Your task to perform on an android device: Search for seafood restaurants on Google Maps Image 0: 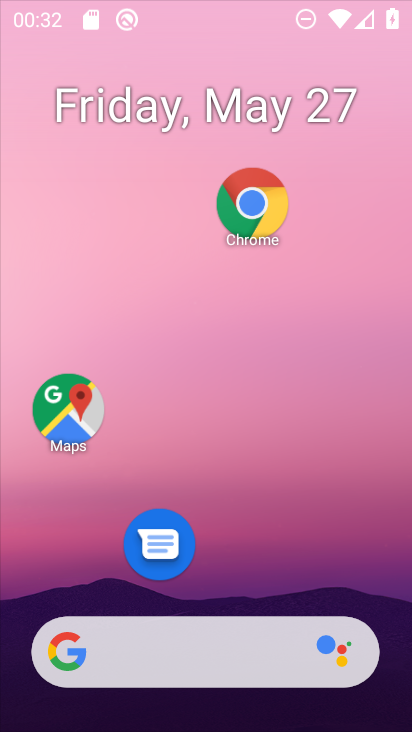
Step 0: drag from (209, 573) to (123, 7)
Your task to perform on an android device: Search for seafood restaurants on Google Maps Image 1: 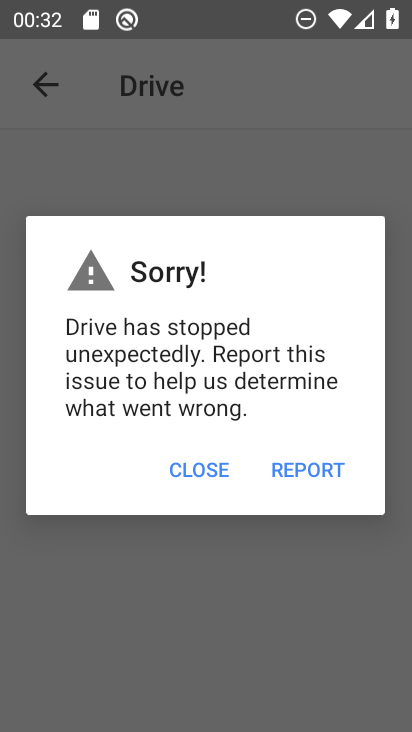
Step 1: press home button
Your task to perform on an android device: Search for seafood restaurants on Google Maps Image 2: 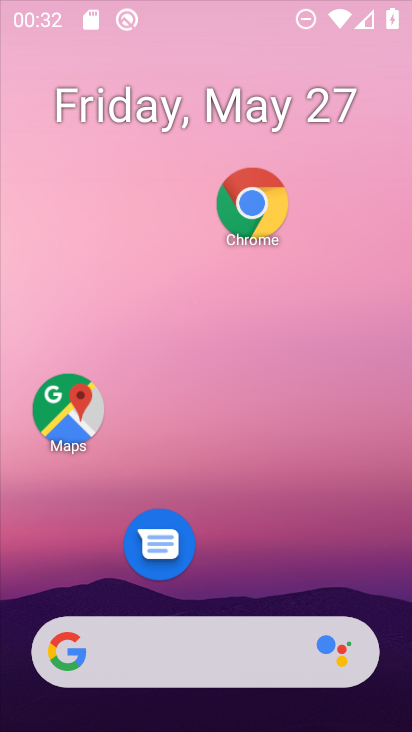
Step 2: drag from (191, 594) to (244, 74)
Your task to perform on an android device: Search for seafood restaurants on Google Maps Image 3: 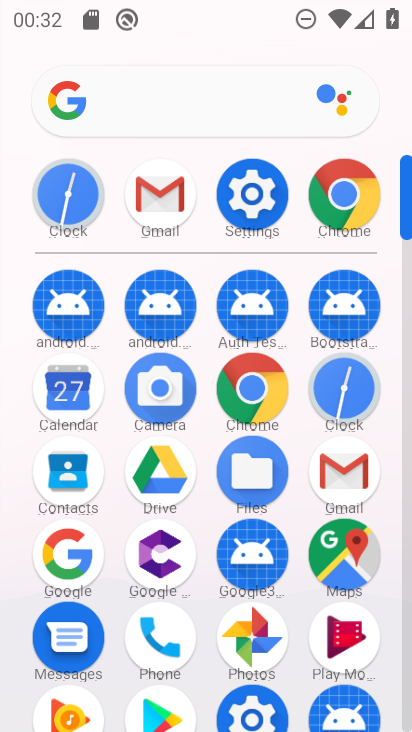
Step 3: click (342, 545)
Your task to perform on an android device: Search for seafood restaurants on Google Maps Image 4: 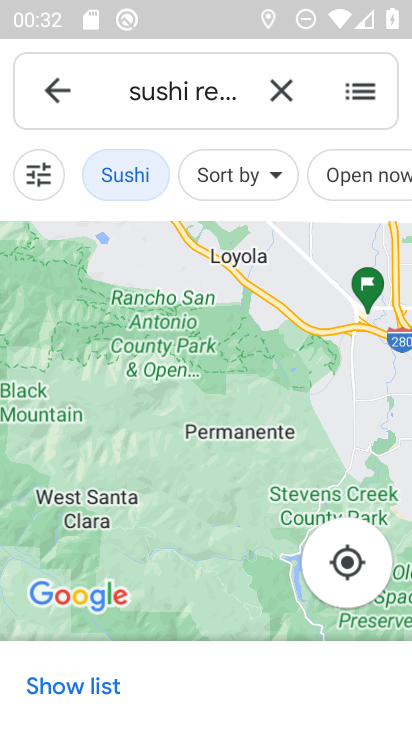
Step 4: click (277, 87)
Your task to perform on an android device: Search for seafood restaurants on Google Maps Image 5: 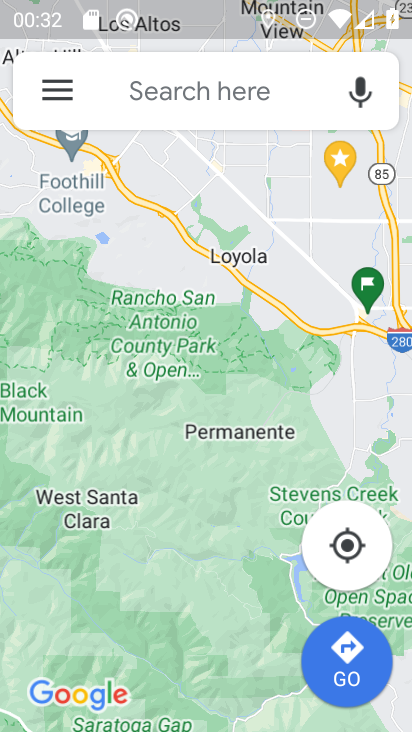
Step 5: click (189, 95)
Your task to perform on an android device: Search for seafood restaurants on Google Maps Image 6: 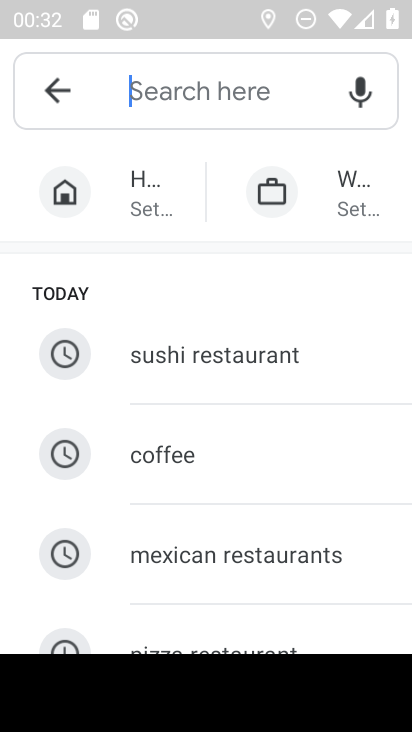
Step 6: drag from (203, 520) to (278, 210)
Your task to perform on an android device: Search for seafood restaurants on Google Maps Image 7: 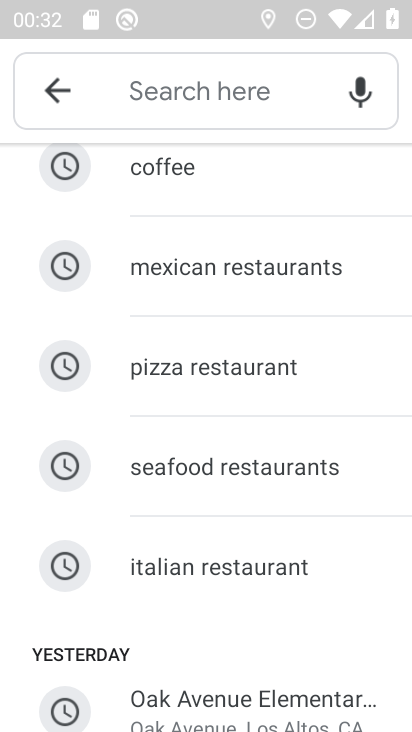
Step 7: click (227, 474)
Your task to perform on an android device: Search for seafood restaurants on Google Maps Image 8: 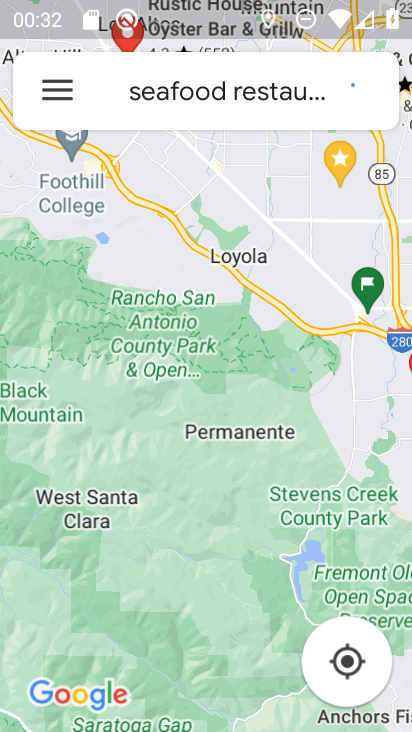
Step 8: task complete